Your task to perform on an android device: set the timer Image 0: 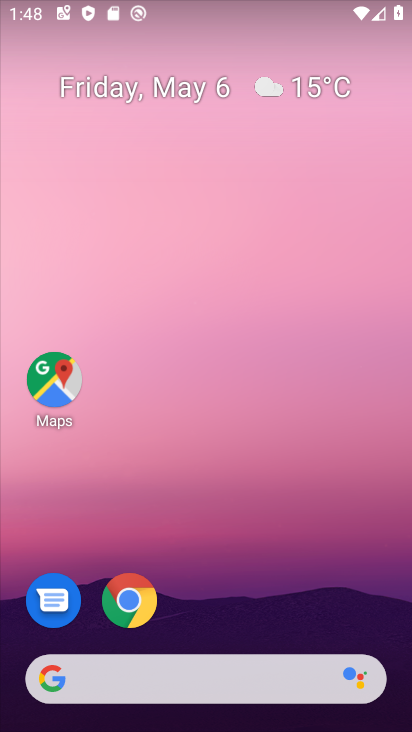
Step 0: drag from (285, 433) to (234, 53)
Your task to perform on an android device: set the timer Image 1: 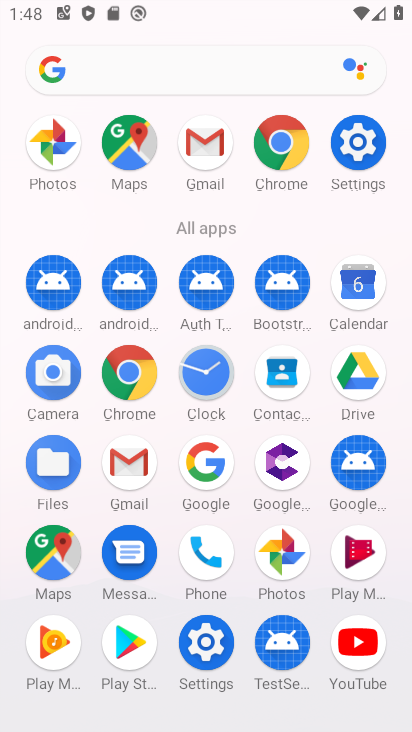
Step 1: click (197, 370)
Your task to perform on an android device: set the timer Image 2: 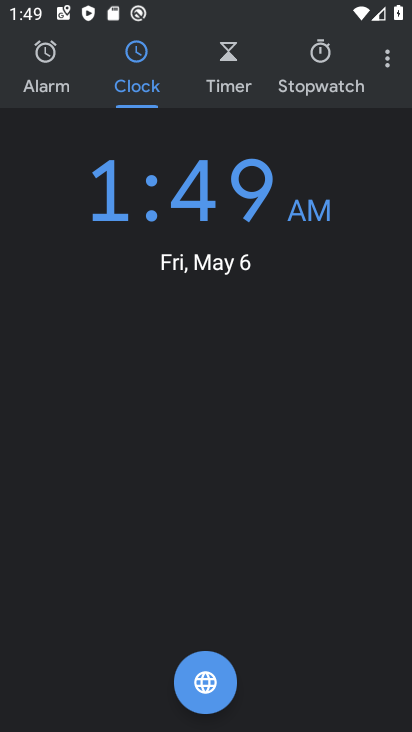
Step 2: click (53, 81)
Your task to perform on an android device: set the timer Image 3: 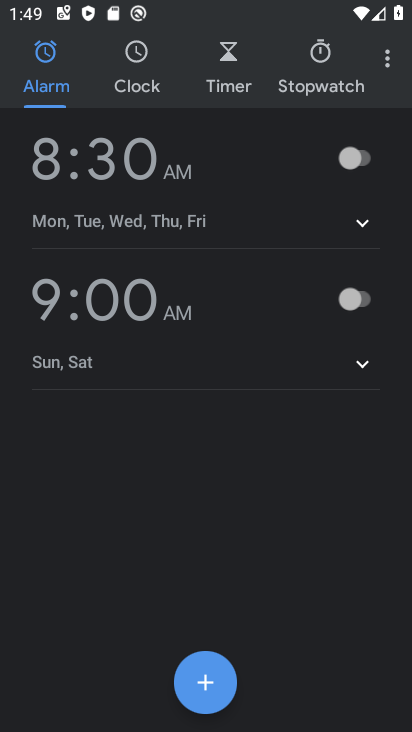
Step 3: click (240, 66)
Your task to perform on an android device: set the timer Image 4: 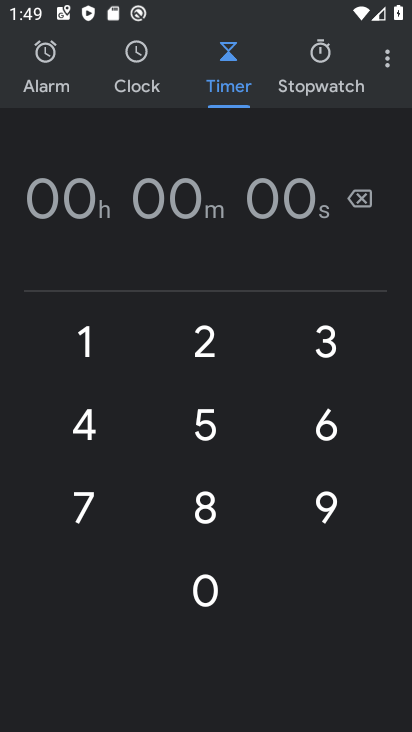
Step 4: click (203, 370)
Your task to perform on an android device: set the timer Image 5: 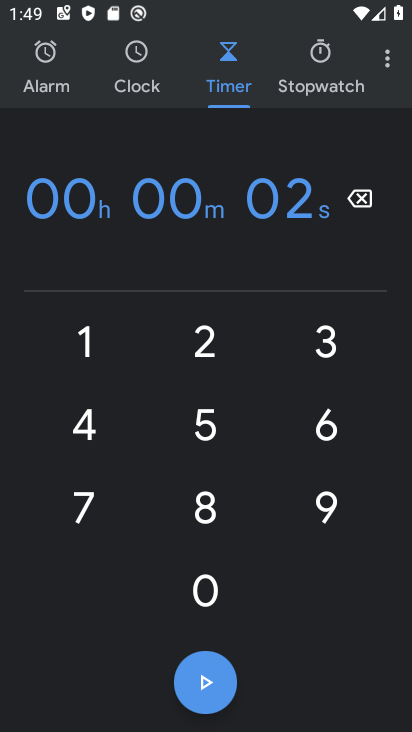
Step 5: click (330, 336)
Your task to perform on an android device: set the timer Image 6: 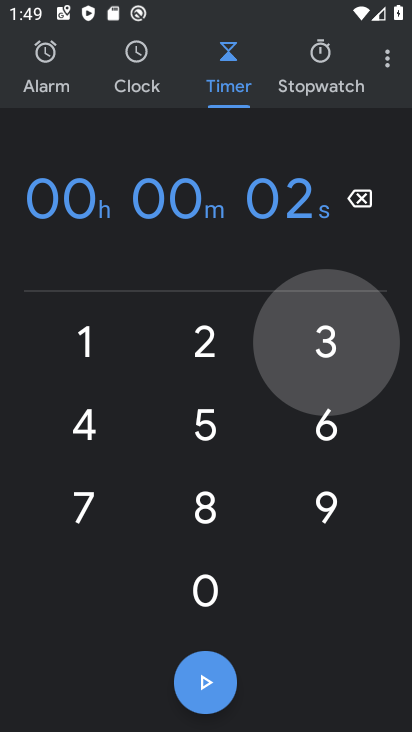
Step 6: click (330, 415)
Your task to perform on an android device: set the timer Image 7: 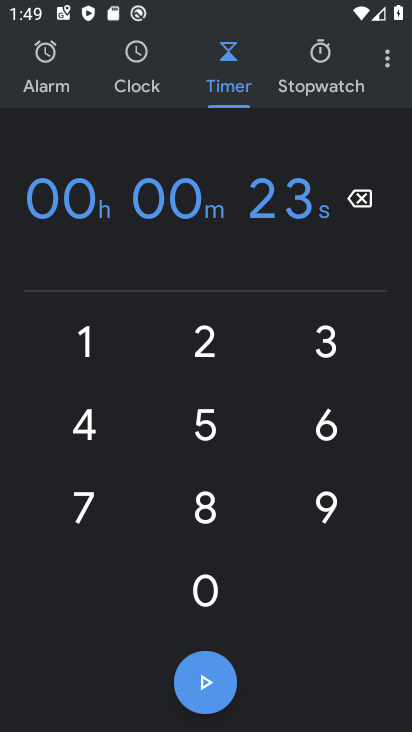
Step 7: click (235, 431)
Your task to perform on an android device: set the timer Image 8: 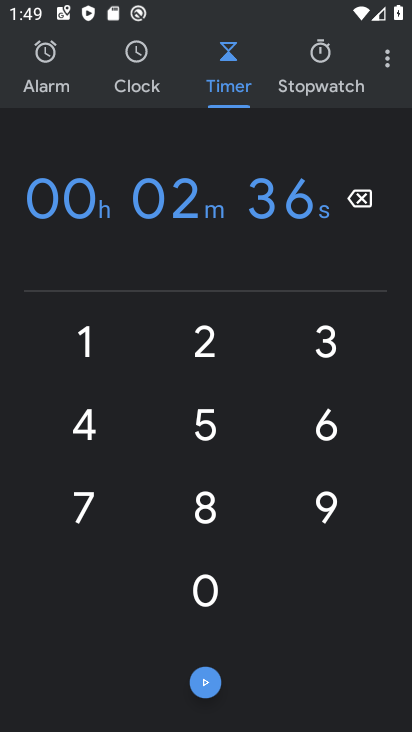
Step 8: click (120, 432)
Your task to perform on an android device: set the timer Image 9: 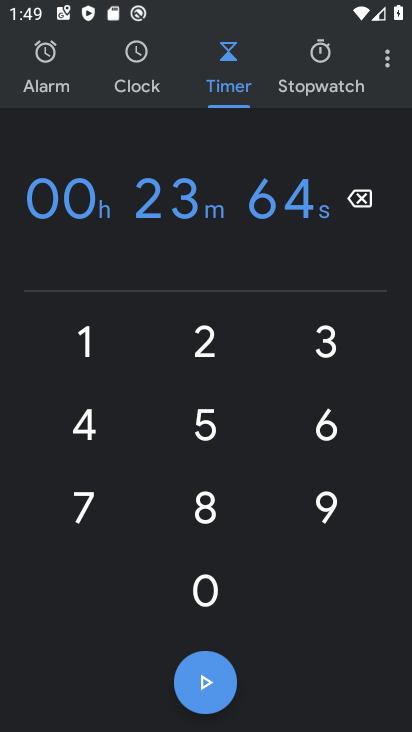
Step 9: click (195, 685)
Your task to perform on an android device: set the timer Image 10: 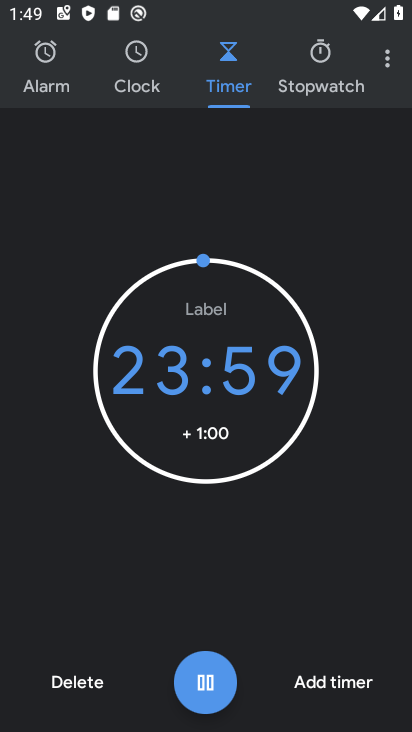
Step 10: task complete